Your task to perform on an android device: Show me recent news Image 0: 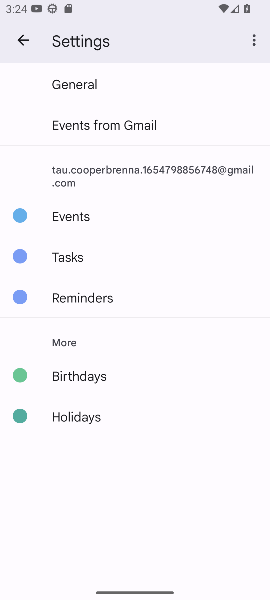
Step 0: press home button
Your task to perform on an android device: Show me recent news Image 1: 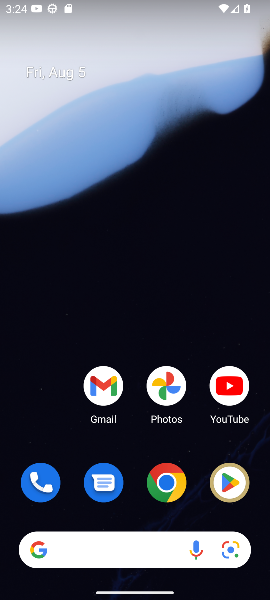
Step 1: task complete